Your task to perform on an android device: choose inbox layout in the gmail app Image 0: 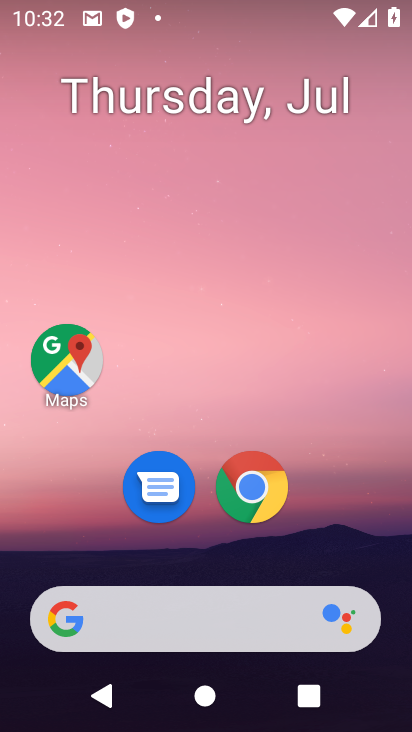
Step 0: drag from (251, 536) to (238, 85)
Your task to perform on an android device: choose inbox layout in the gmail app Image 1: 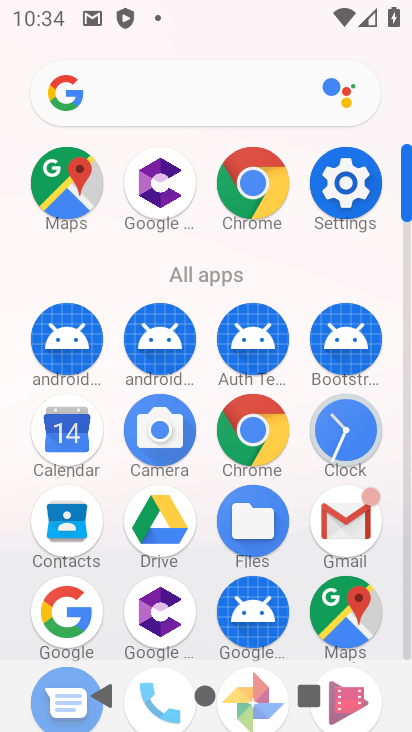
Step 1: click (358, 534)
Your task to perform on an android device: choose inbox layout in the gmail app Image 2: 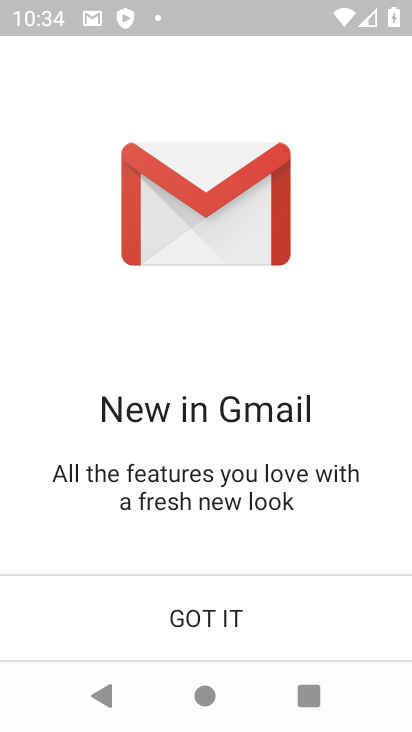
Step 2: click (212, 632)
Your task to perform on an android device: choose inbox layout in the gmail app Image 3: 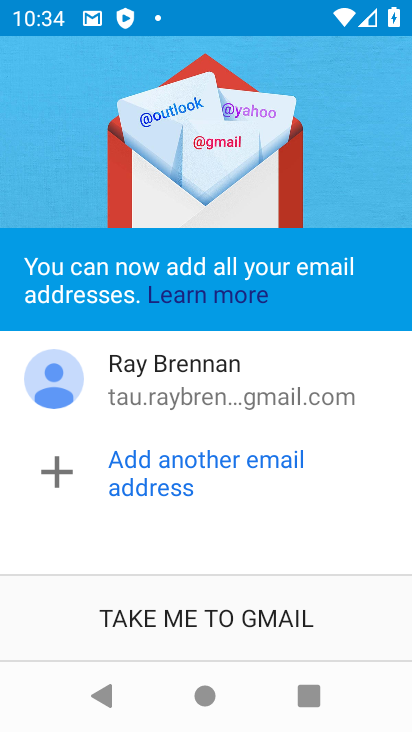
Step 3: click (200, 623)
Your task to perform on an android device: choose inbox layout in the gmail app Image 4: 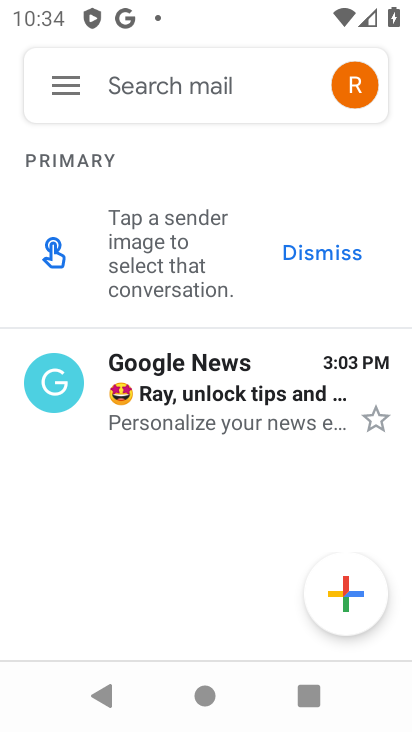
Step 4: click (51, 74)
Your task to perform on an android device: choose inbox layout in the gmail app Image 5: 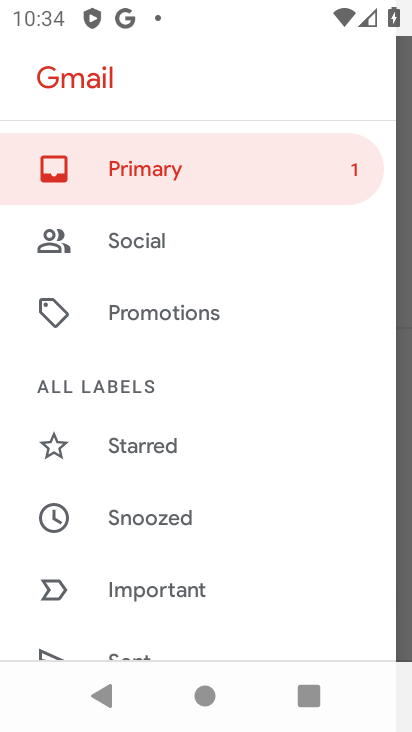
Step 5: drag from (181, 595) to (171, 111)
Your task to perform on an android device: choose inbox layout in the gmail app Image 6: 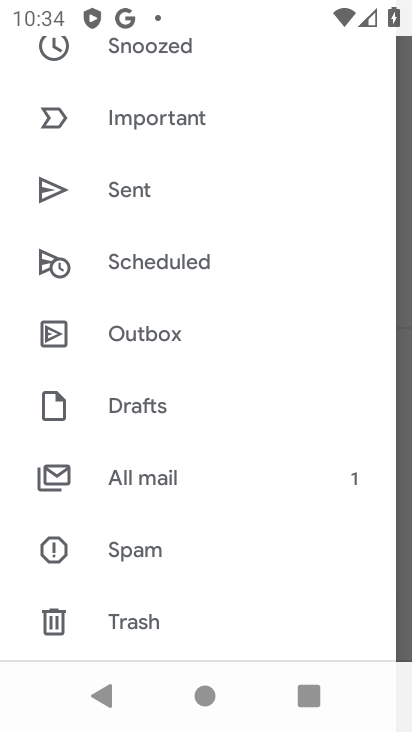
Step 6: drag from (186, 510) to (225, 165)
Your task to perform on an android device: choose inbox layout in the gmail app Image 7: 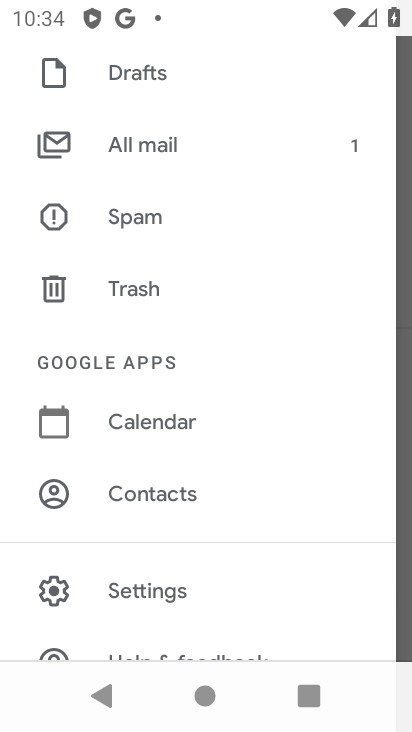
Step 7: drag from (196, 543) to (196, 87)
Your task to perform on an android device: choose inbox layout in the gmail app Image 8: 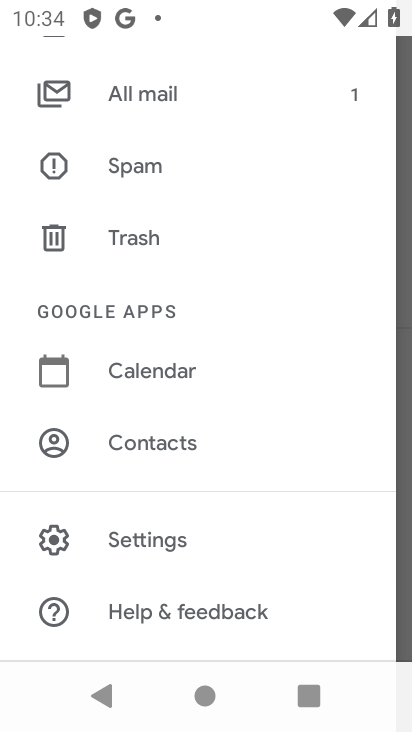
Step 8: drag from (234, 207) to (209, 468)
Your task to perform on an android device: choose inbox layout in the gmail app Image 9: 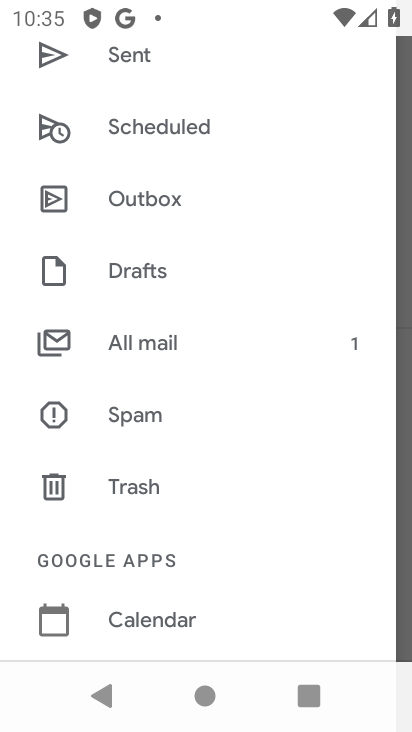
Step 9: drag from (184, 136) to (166, 710)
Your task to perform on an android device: choose inbox layout in the gmail app Image 10: 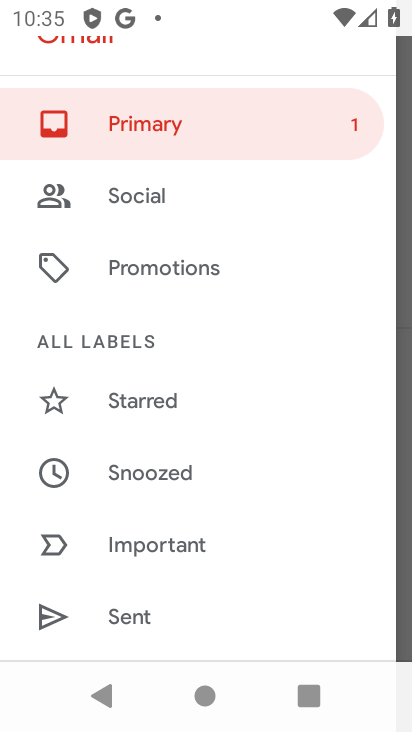
Step 10: drag from (163, 177) to (101, 695)
Your task to perform on an android device: choose inbox layout in the gmail app Image 11: 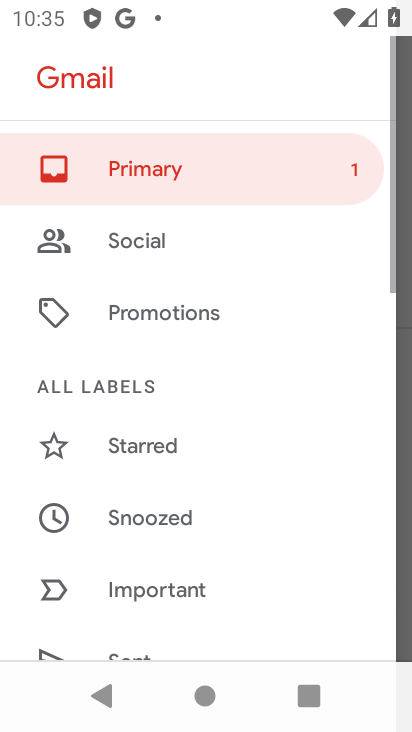
Step 11: drag from (269, 183) to (198, 608)
Your task to perform on an android device: choose inbox layout in the gmail app Image 12: 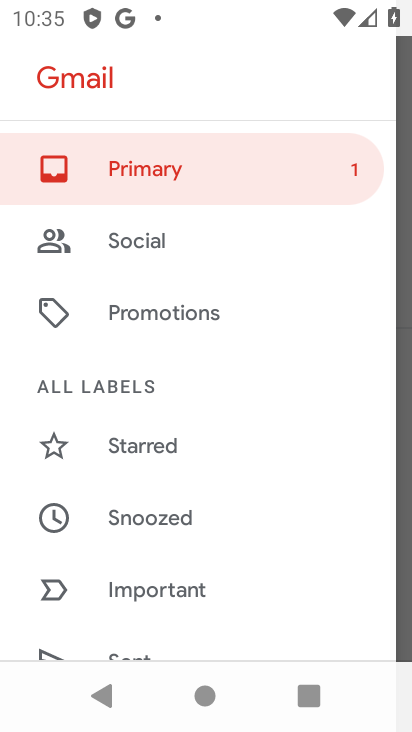
Step 12: drag from (220, 593) to (252, 128)
Your task to perform on an android device: choose inbox layout in the gmail app Image 13: 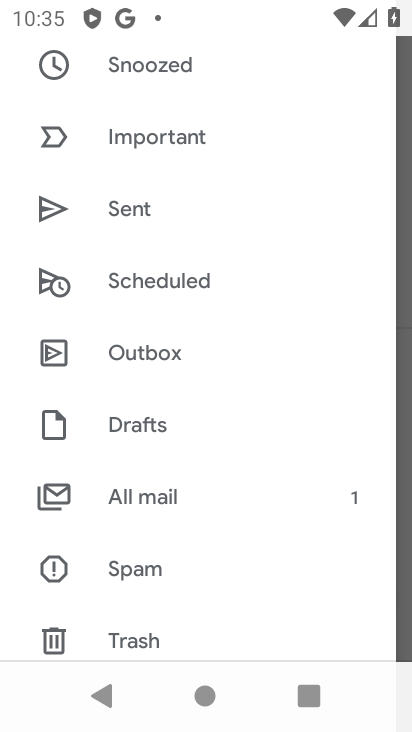
Step 13: drag from (164, 581) to (294, 75)
Your task to perform on an android device: choose inbox layout in the gmail app Image 14: 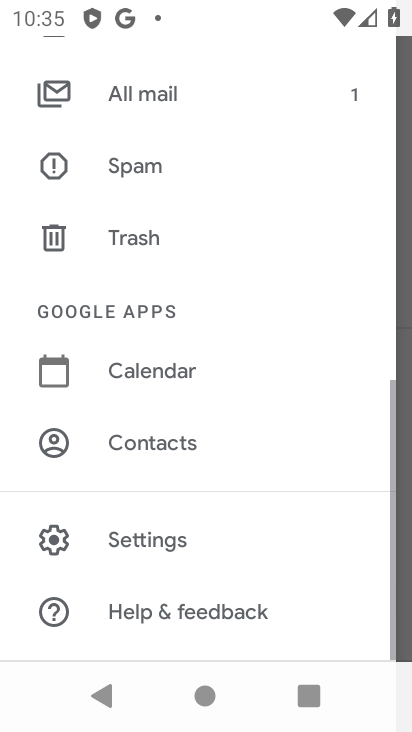
Step 14: click (151, 545)
Your task to perform on an android device: choose inbox layout in the gmail app Image 15: 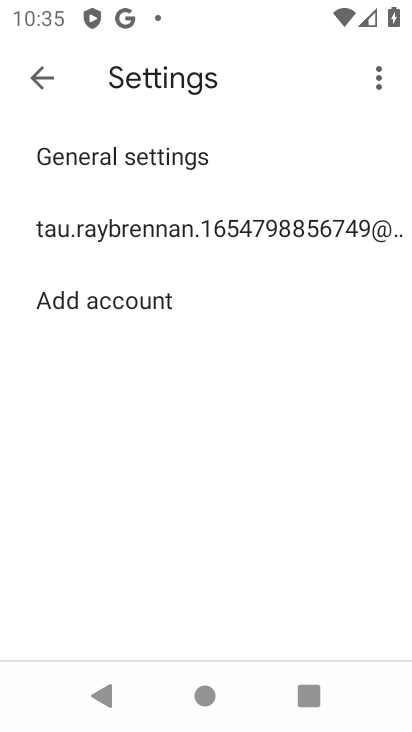
Step 15: click (159, 224)
Your task to perform on an android device: choose inbox layout in the gmail app Image 16: 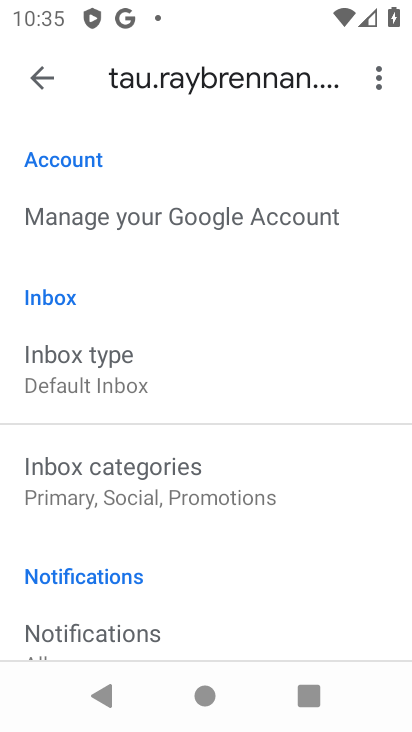
Step 16: click (138, 363)
Your task to perform on an android device: choose inbox layout in the gmail app Image 17: 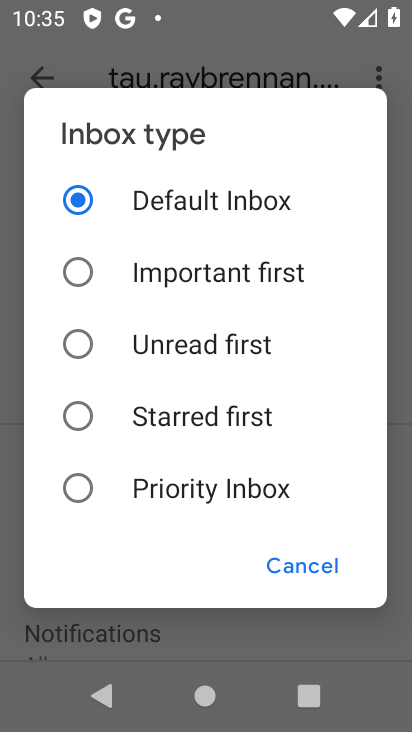
Step 17: click (80, 494)
Your task to perform on an android device: choose inbox layout in the gmail app Image 18: 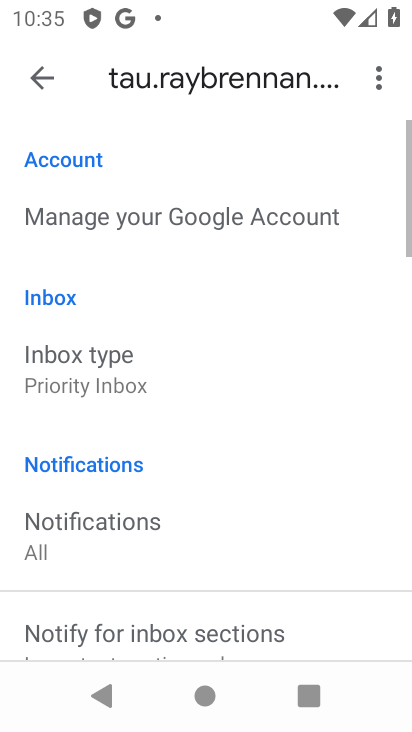
Step 18: task complete